Your task to perform on an android device: Check the news Image 0: 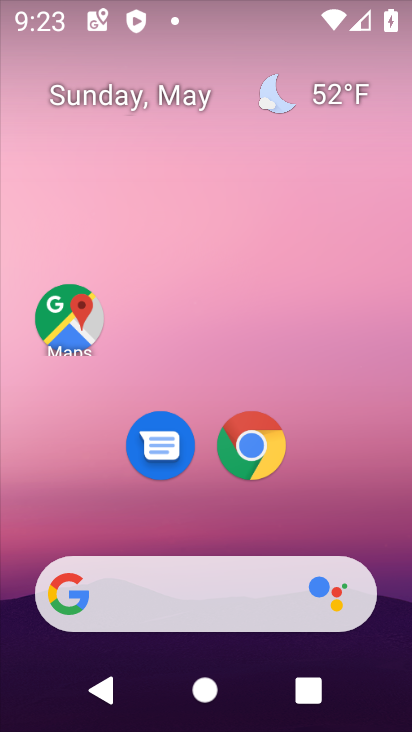
Step 0: drag from (8, 193) to (316, 496)
Your task to perform on an android device: Check the news Image 1: 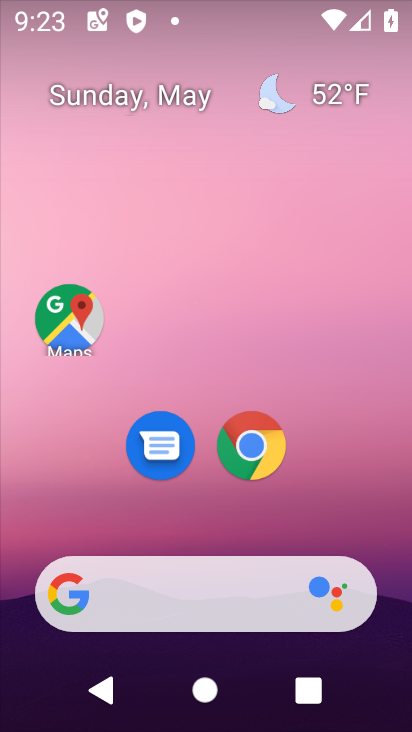
Step 1: task complete